Your task to perform on an android device: Go to Google maps Image 0: 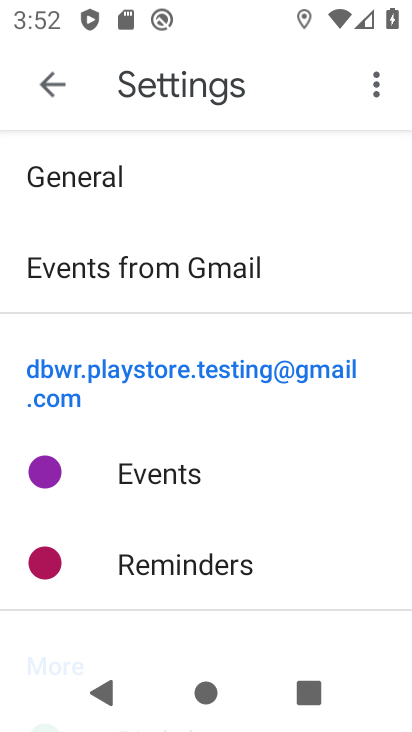
Step 0: press home button
Your task to perform on an android device: Go to Google maps Image 1: 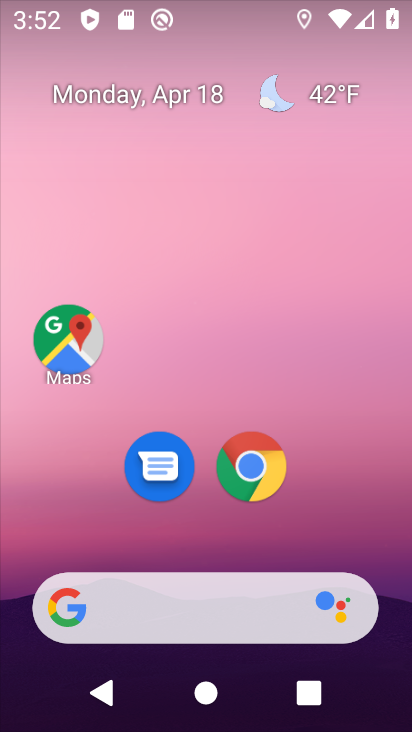
Step 1: click (66, 344)
Your task to perform on an android device: Go to Google maps Image 2: 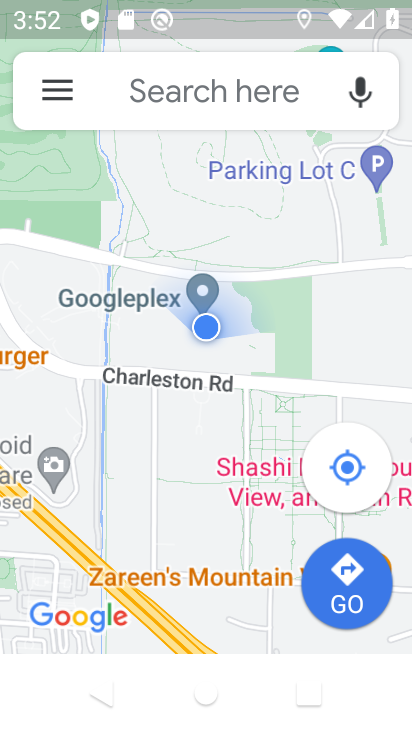
Step 2: click (57, 94)
Your task to perform on an android device: Go to Google maps Image 3: 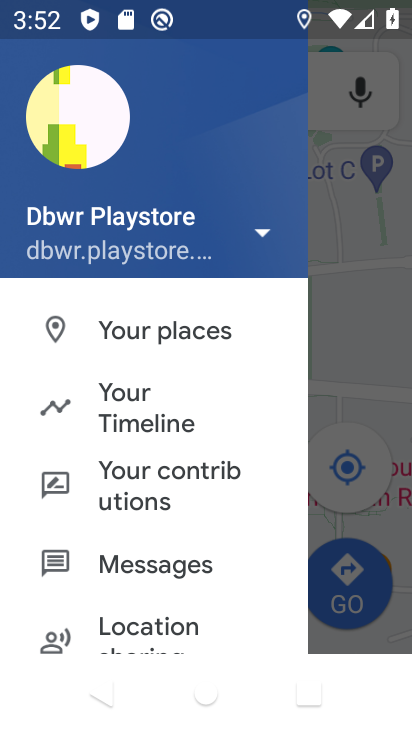
Step 3: click (329, 325)
Your task to perform on an android device: Go to Google maps Image 4: 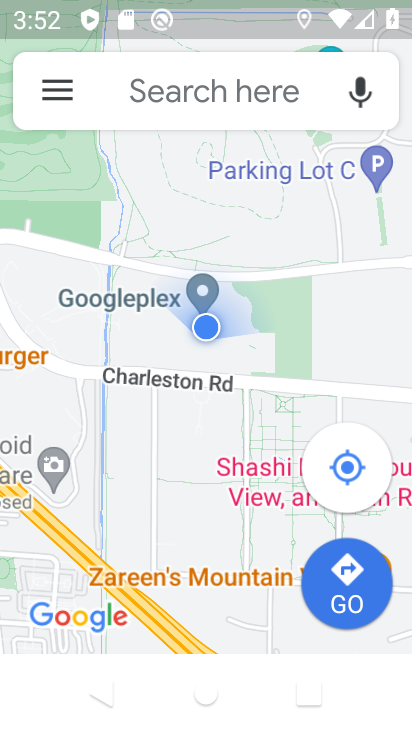
Step 4: task complete